Your task to perform on an android device: toggle pop-ups in chrome Image 0: 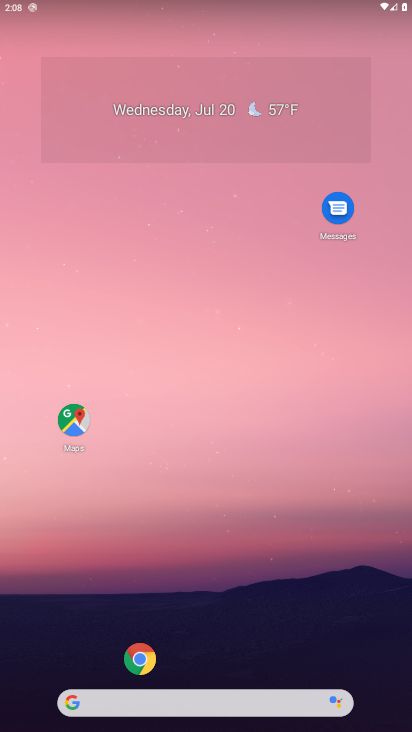
Step 0: click (143, 648)
Your task to perform on an android device: toggle pop-ups in chrome Image 1: 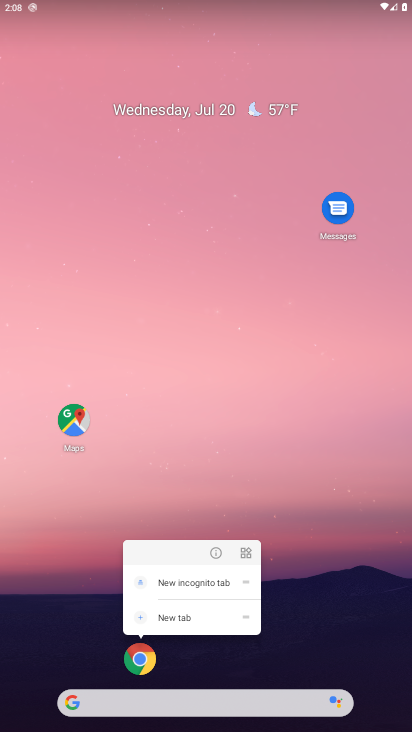
Step 1: click (144, 656)
Your task to perform on an android device: toggle pop-ups in chrome Image 2: 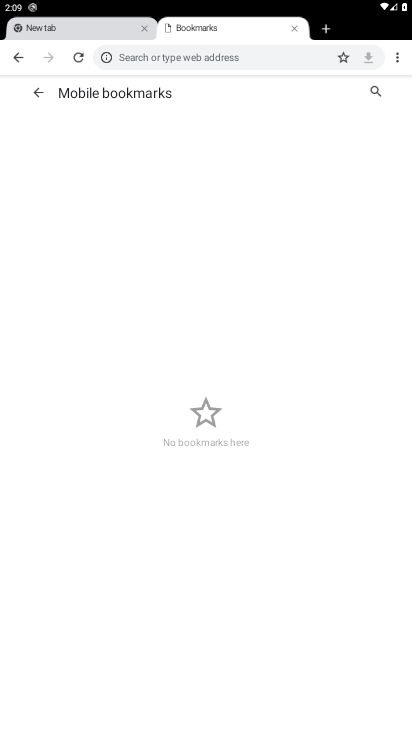
Step 2: click (403, 55)
Your task to perform on an android device: toggle pop-ups in chrome Image 3: 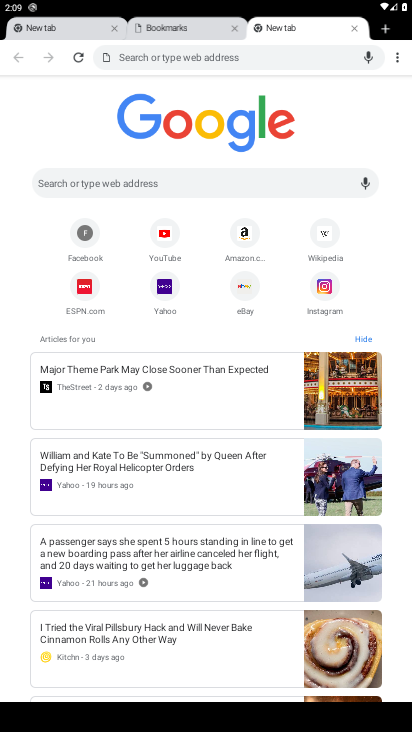
Step 3: click (406, 55)
Your task to perform on an android device: toggle pop-ups in chrome Image 4: 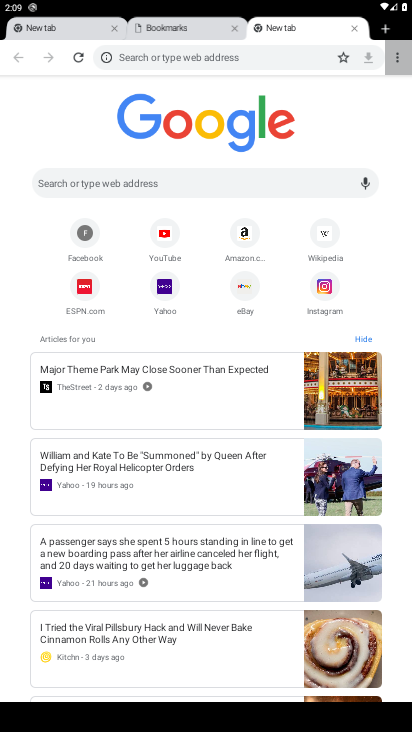
Step 4: click (404, 53)
Your task to perform on an android device: toggle pop-ups in chrome Image 5: 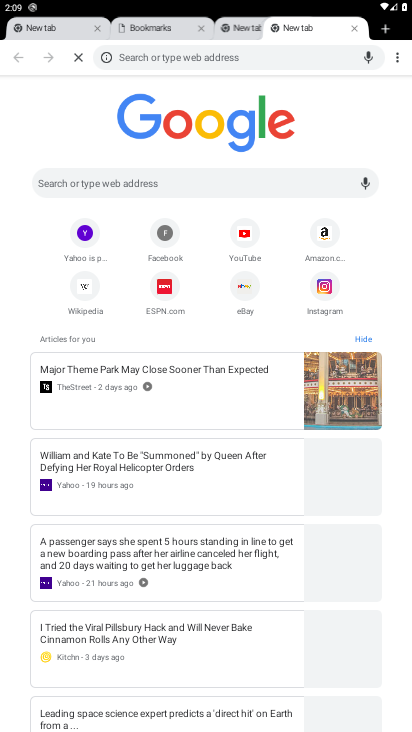
Step 5: click (387, 65)
Your task to perform on an android device: toggle pop-ups in chrome Image 6: 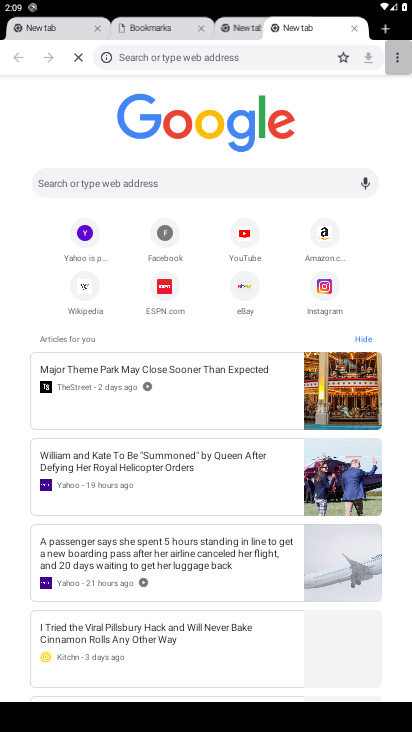
Step 6: click (396, 58)
Your task to perform on an android device: toggle pop-ups in chrome Image 7: 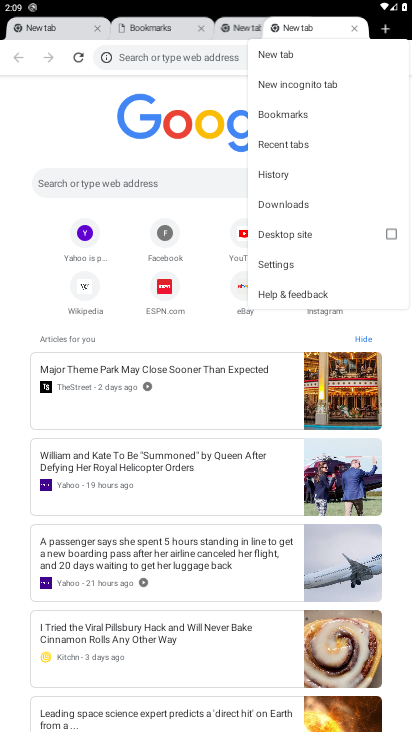
Step 7: click (278, 255)
Your task to perform on an android device: toggle pop-ups in chrome Image 8: 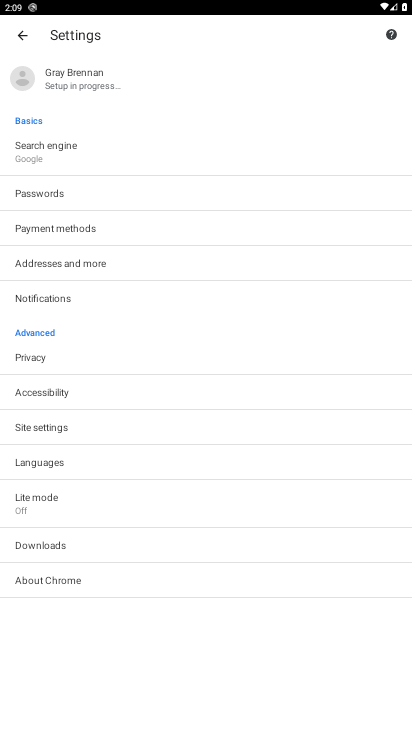
Step 8: click (43, 430)
Your task to perform on an android device: toggle pop-ups in chrome Image 9: 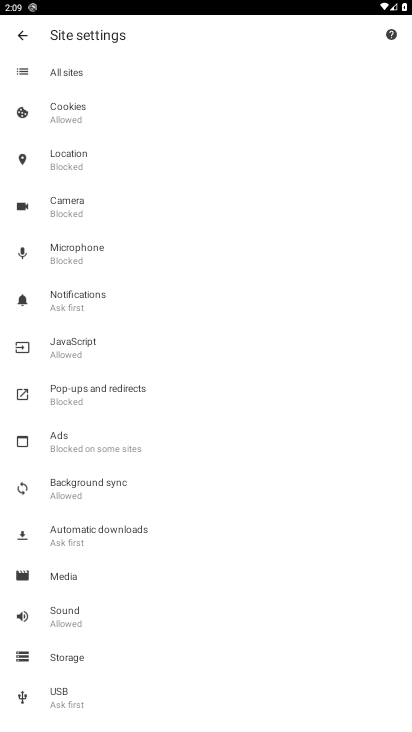
Step 9: click (70, 382)
Your task to perform on an android device: toggle pop-ups in chrome Image 10: 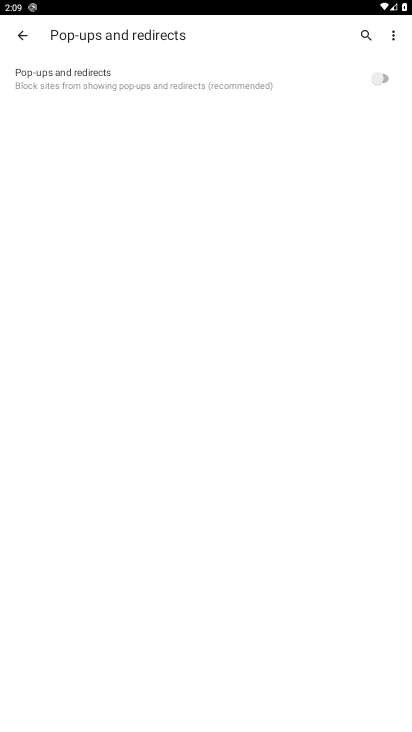
Step 10: click (382, 81)
Your task to perform on an android device: toggle pop-ups in chrome Image 11: 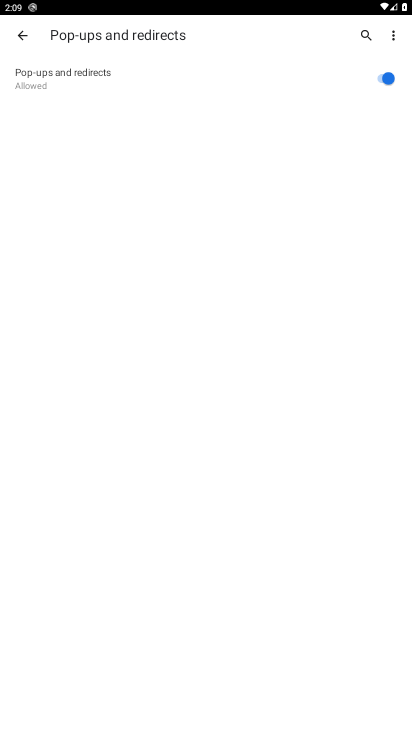
Step 11: task complete